Your task to perform on an android device: What's the weather going to be tomorrow? Image 0: 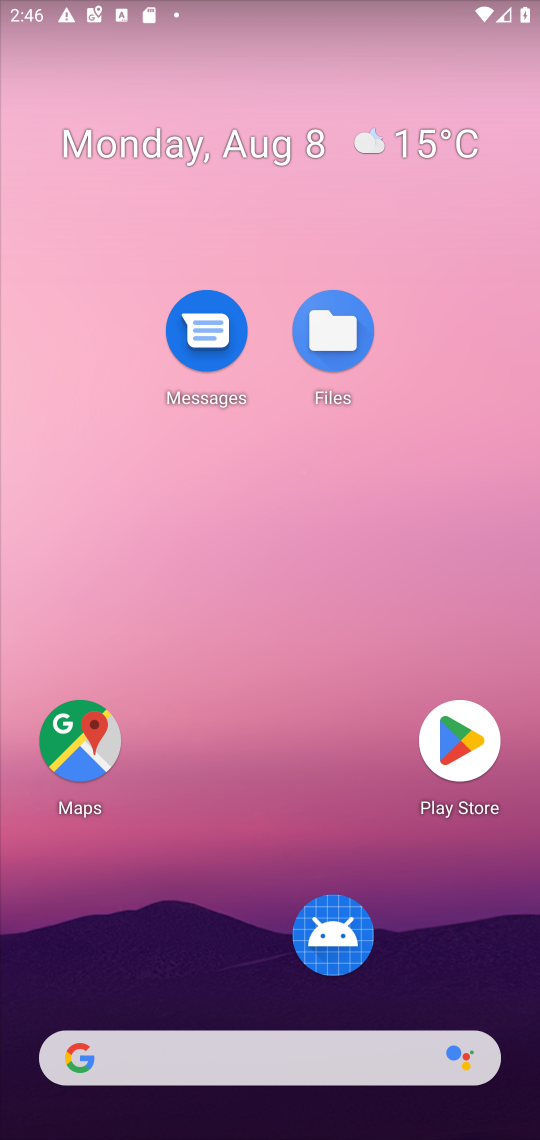
Step 0: drag from (308, 1058) to (179, 296)
Your task to perform on an android device: What's the weather going to be tomorrow? Image 1: 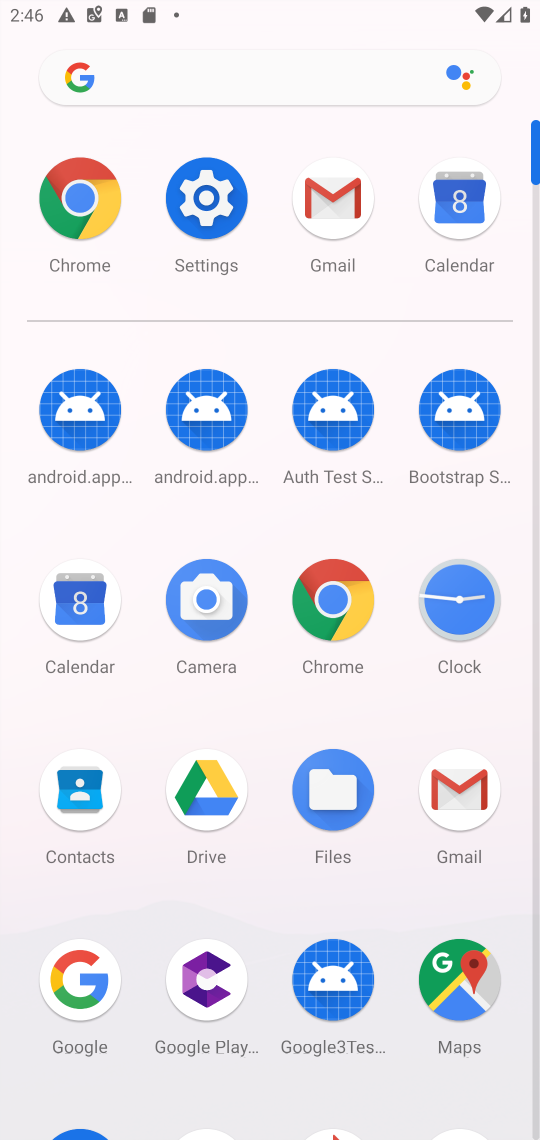
Step 1: click (327, 595)
Your task to perform on an android device: What's the weather going to be tomorrow? Image 2: 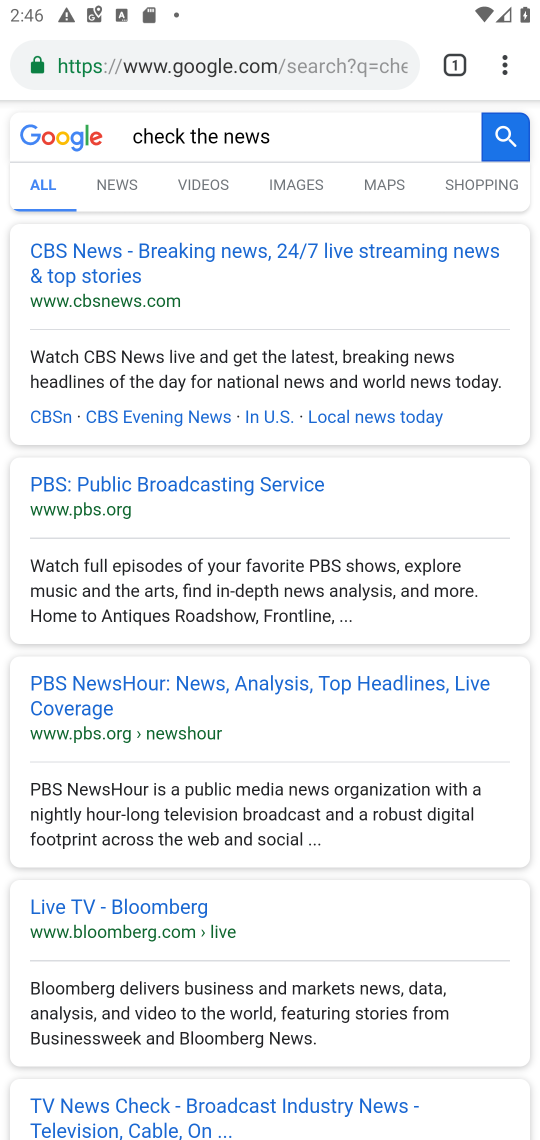
Step 2: click (264, 50)
Your task to perform on an android device: What's the weather going to be tomorrow? Image 3: 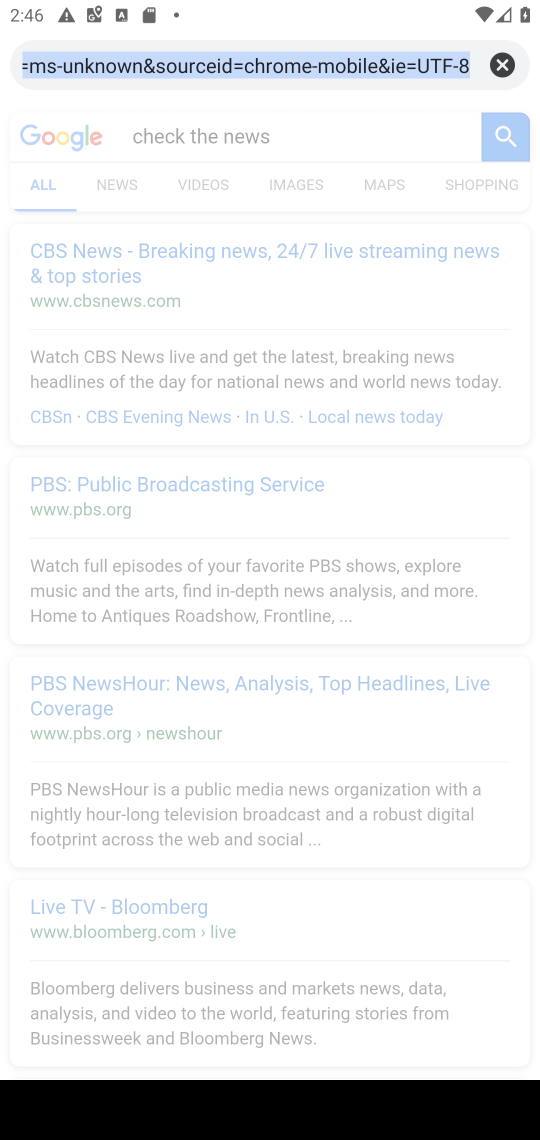
Step 3: type "whats the weather going to be tomorrow"
Your task to perform on an android device: What's the weather going to be tomorrow? Image 4: 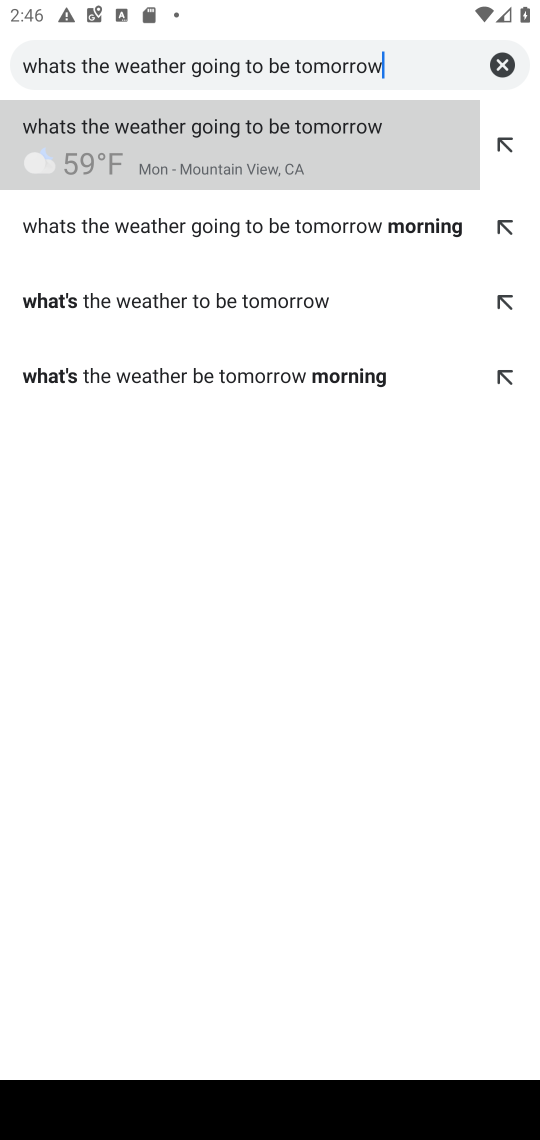
Step 4: click (268, 130)
Your task to perform on an android device: What's the weather going to be tomorrow? Image 5: 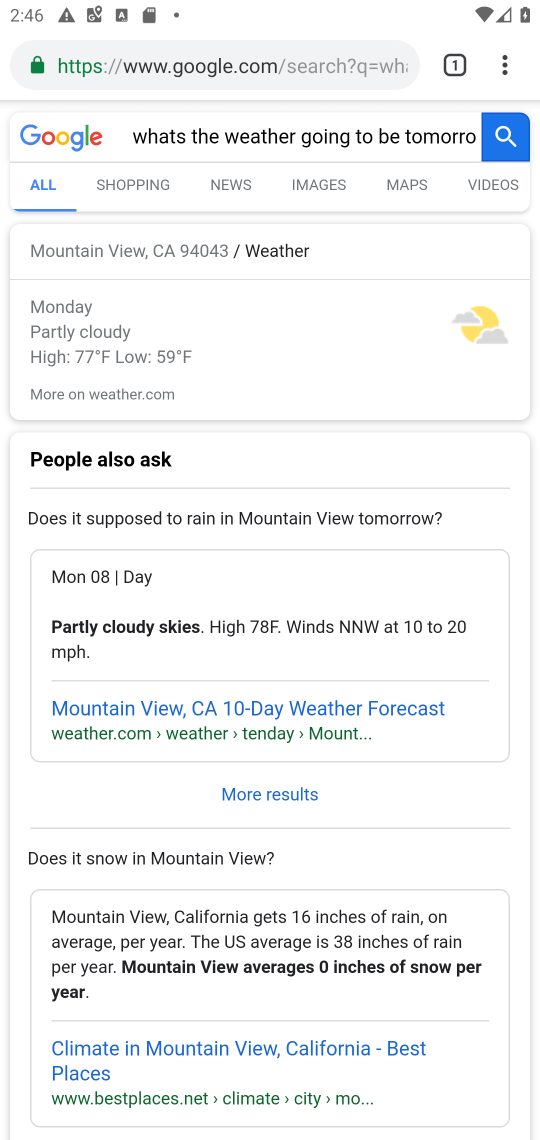
Step 5: task complete